Your task to perform on an android device: Search for macbook pro 13 inch on amazon.com, select the first entry, and add it to the cart. Image 0: 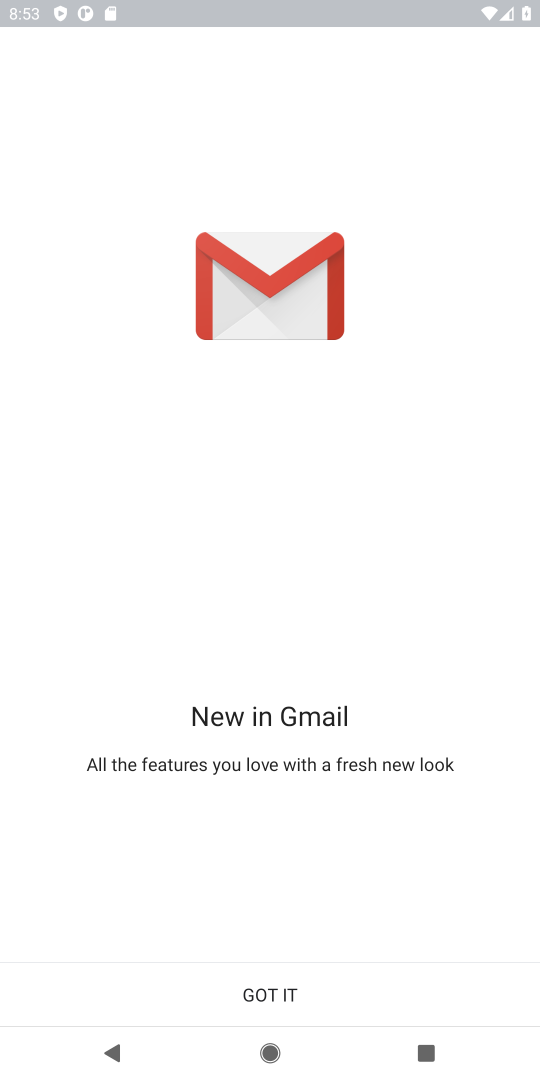
Step 0: press home button
Your task to perform on an android device: Search for macbook pro 13 inch on amazon.com, select the first entry, and add it to the cart. Image 1: 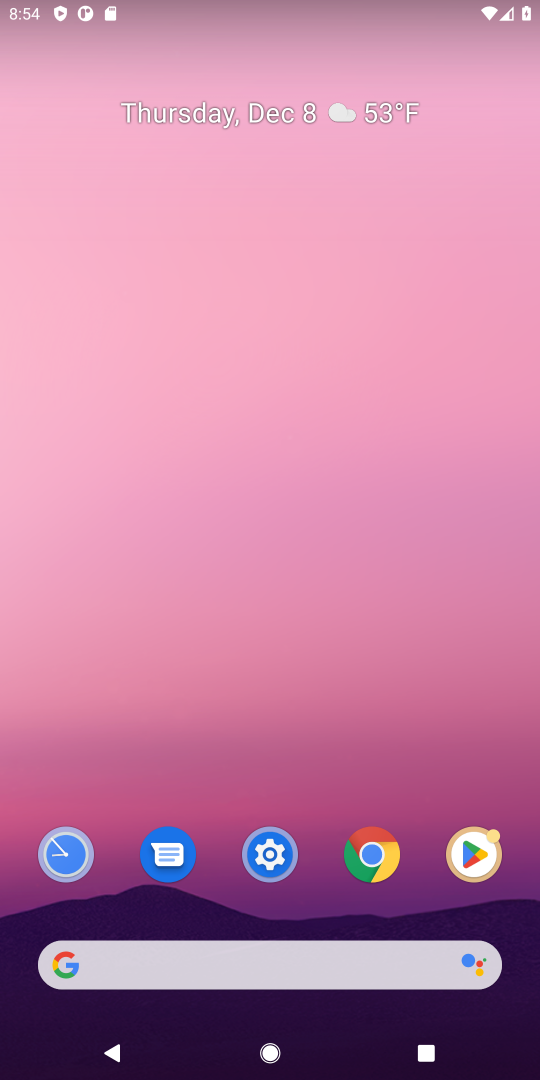
Step 1: click (82, 959)
Your task to perform on an android device: Search for macbook pro 13 inch on amazon.com, select the first entry, and add it to the cart. Image 2: 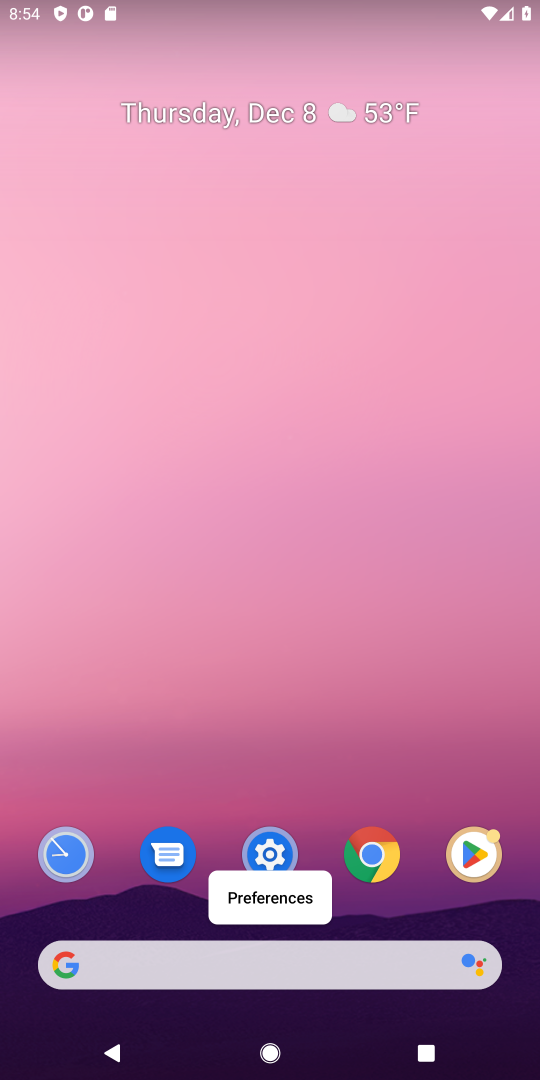
Step 2: click (91, 959)
Your task to perform on an android device: Search for macbook pro 13 inch on amazon.com, select the first entry, and add it to the cart. Image 3: 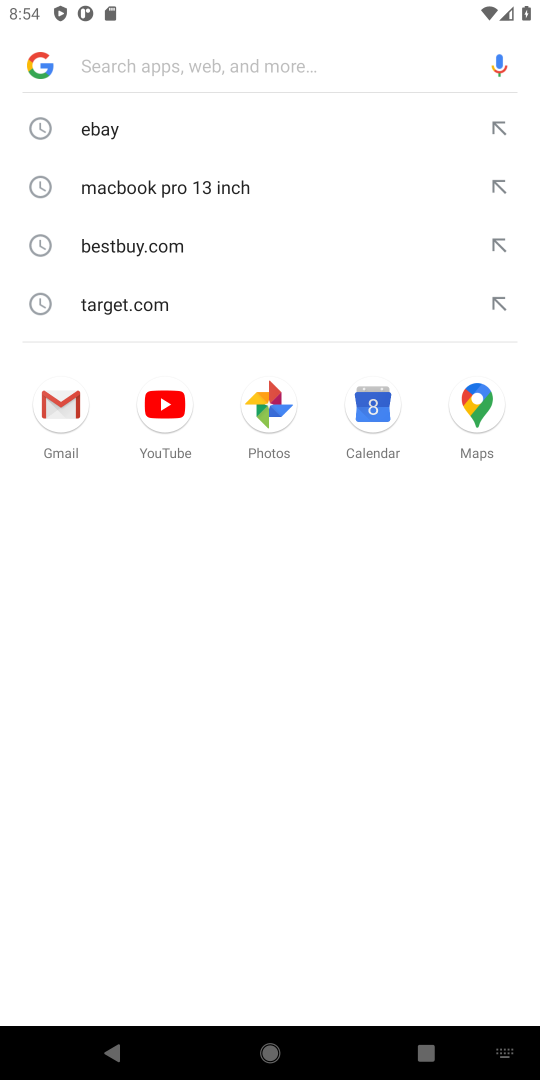
Step 3: type "amazon.com"
Your task to perform on an android device: Search for macbook pro 13 inch on amazon.com, select the first entry, and add it to the cart. Image 4: 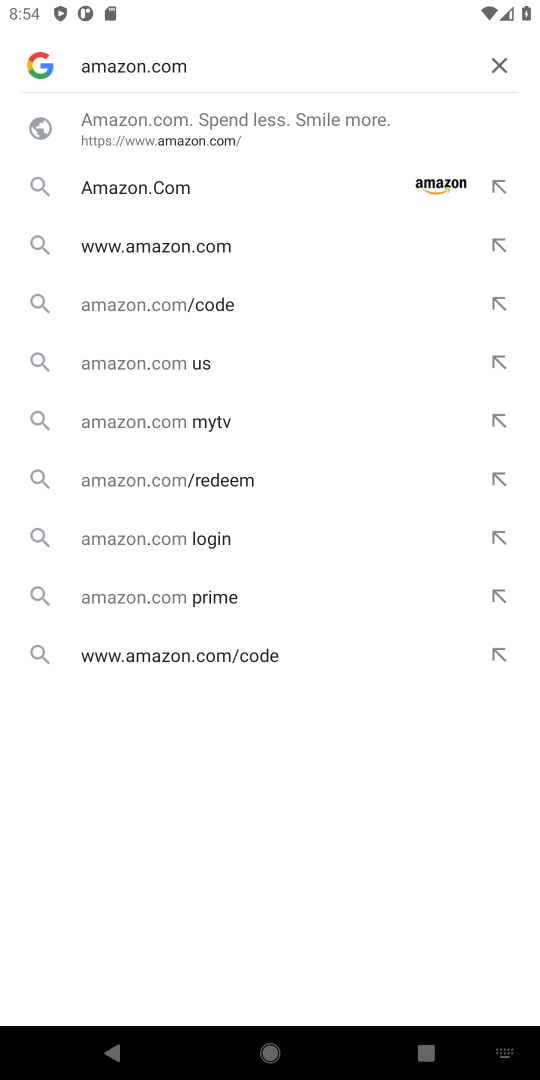
Step 4: press enter
Your task to perform on an android device: Search for macbook pro 13 inch on amazon.com, select the first entry, and add it to the cart. Image 5: 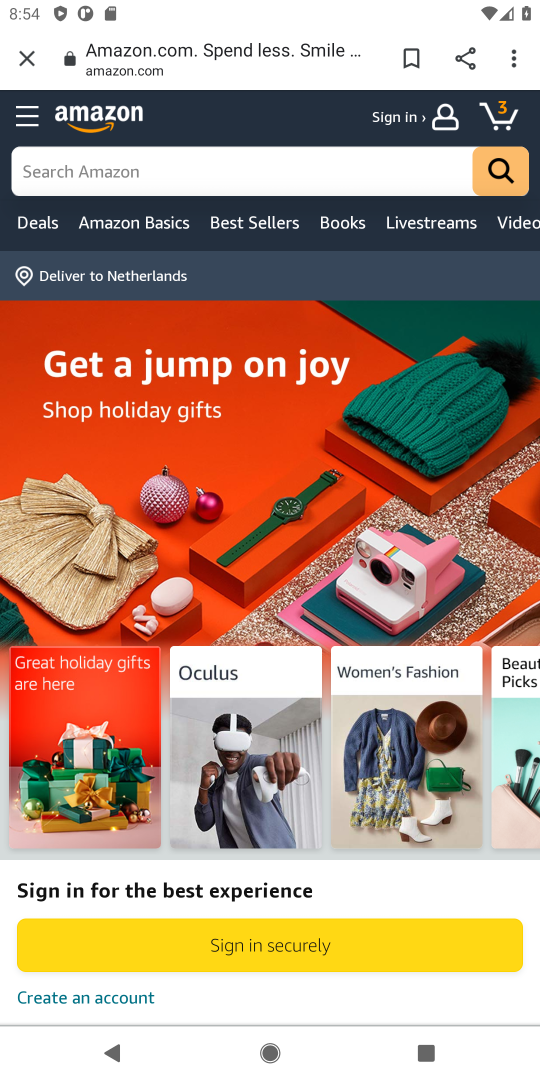
Step 5: click (46, 176)
Your task to perform on an android device: Search for macbook pro 13 inch on amazon.com, select the first entry, and add it to the cart. Image 6: 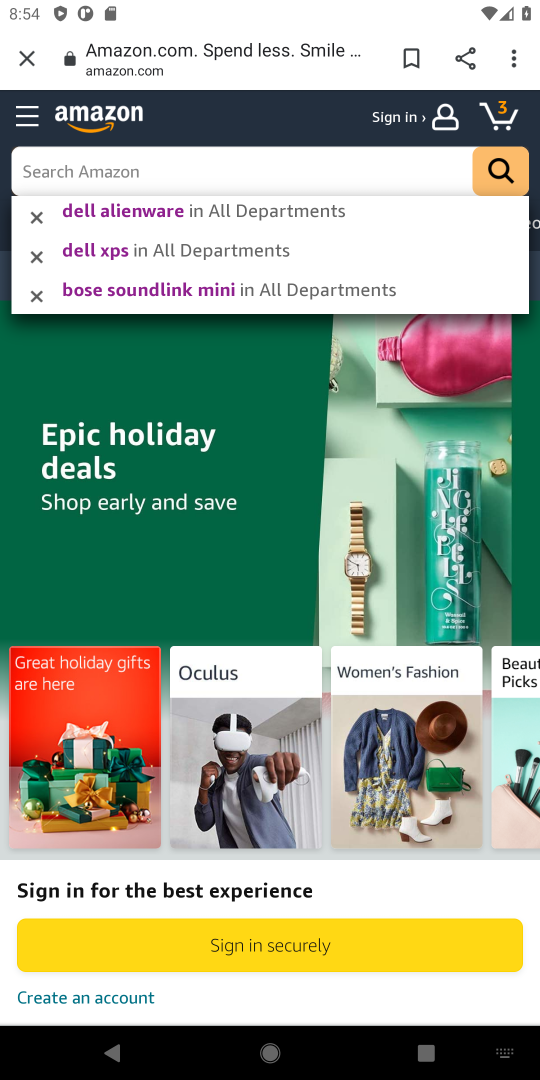
Step 6: press enter
Your task to perform on an android device: Search for macbook pro 13 inch on amazon.com, select the first entry, and add it to the cart. Image 7: 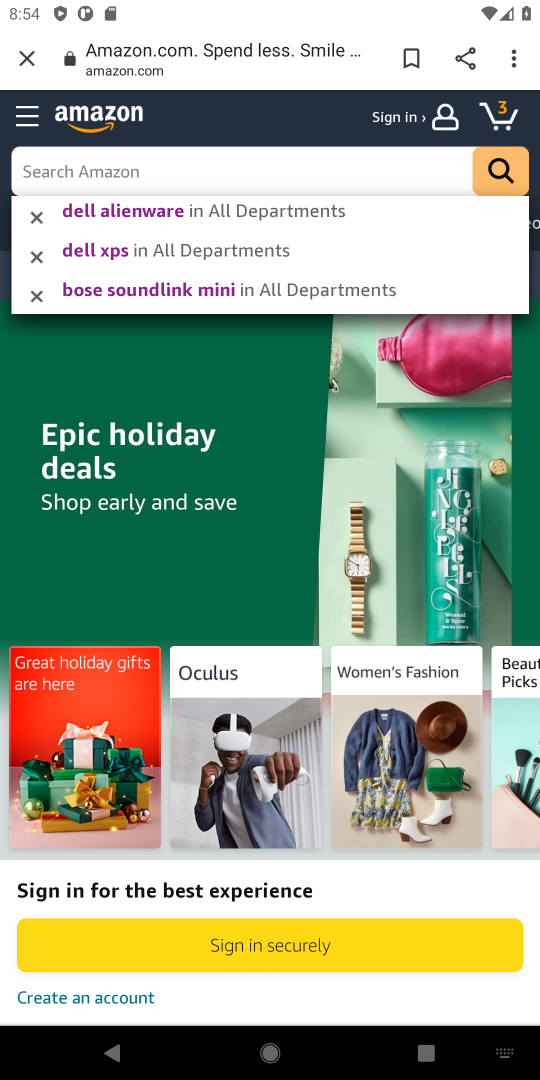
Step 7: type "macbook pro 13 inch"
Your task to perform on an android device: Search for macbook pro 13 inch on amazon.com, select the first entry, and add it to the cart. Image 8: 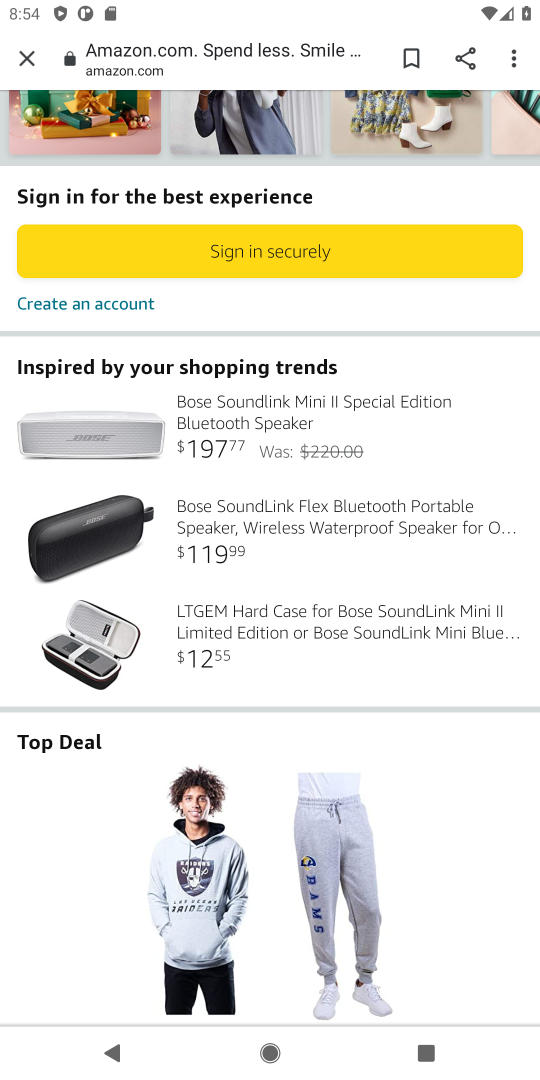
Step 8: drag from (493, 324) to (471, 913)
Your task to perform on an android device: Search for macbook pro 13 inch on amazon.com, select the first entry, and add it to the cart. Image 9: 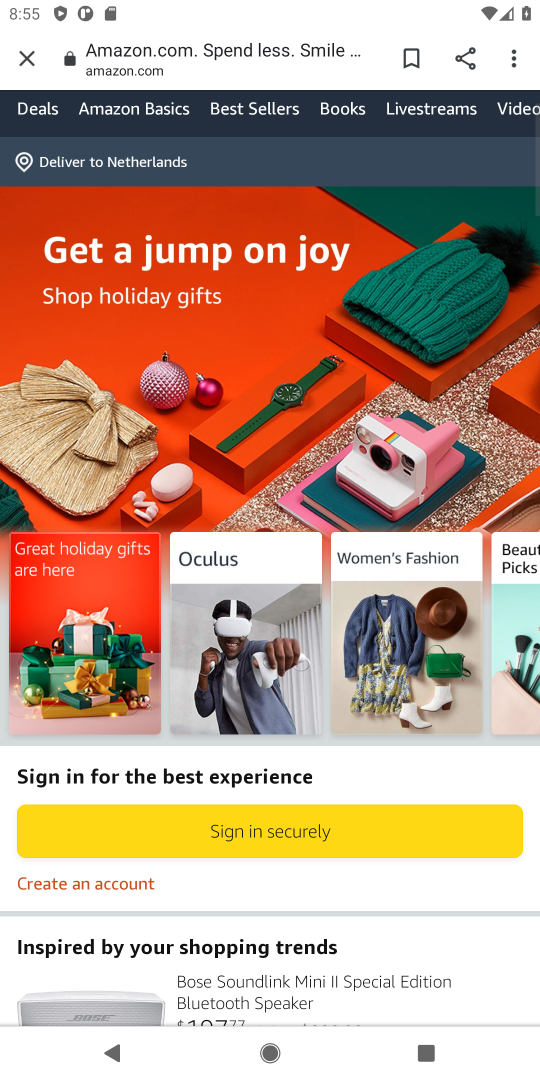
Step 9: drag from (431, 242) to (362, 938)
Your task to perform on an android device: Search for macbook pro 13 inch on amazon.com, select the first entry, and add it to the cart. Image 10: 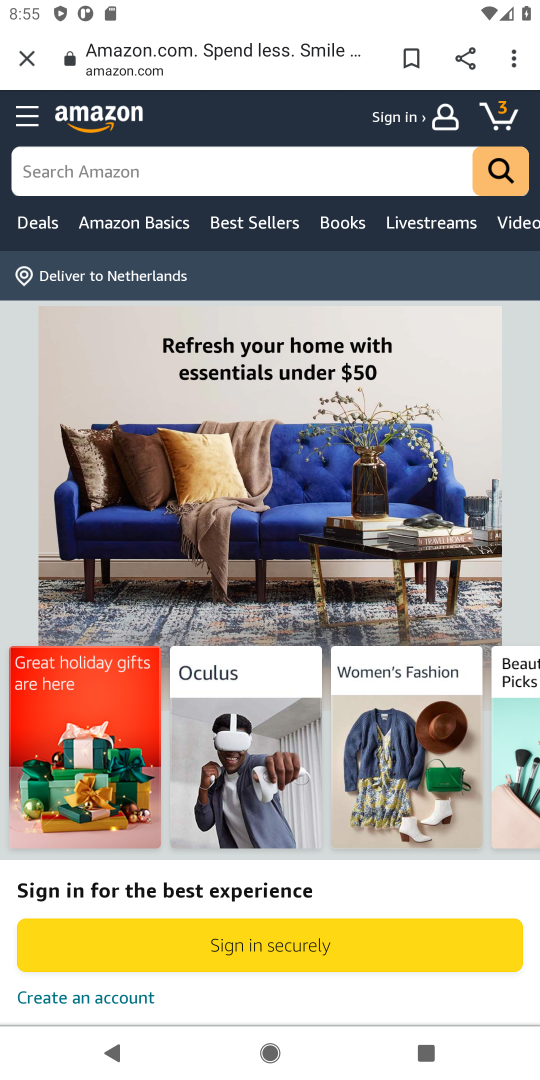
Step 10: click (81, 170)
Your task to perform on an android device: Search for macbook pro 13 inch on amazon.com, select the first entry, and add it to the cart. Image 11: 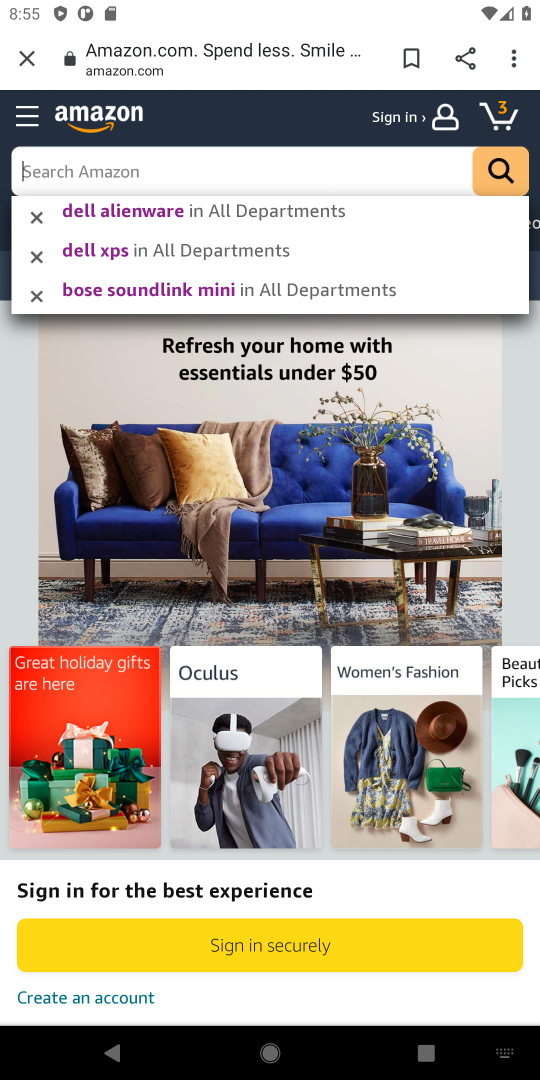
Step 11: type "macbook pro 13 inch"
Your task to perform on an android device: Search for macbook pro 13 inch on amazon.com, select the first entry, and add it to the cart. Image 12: 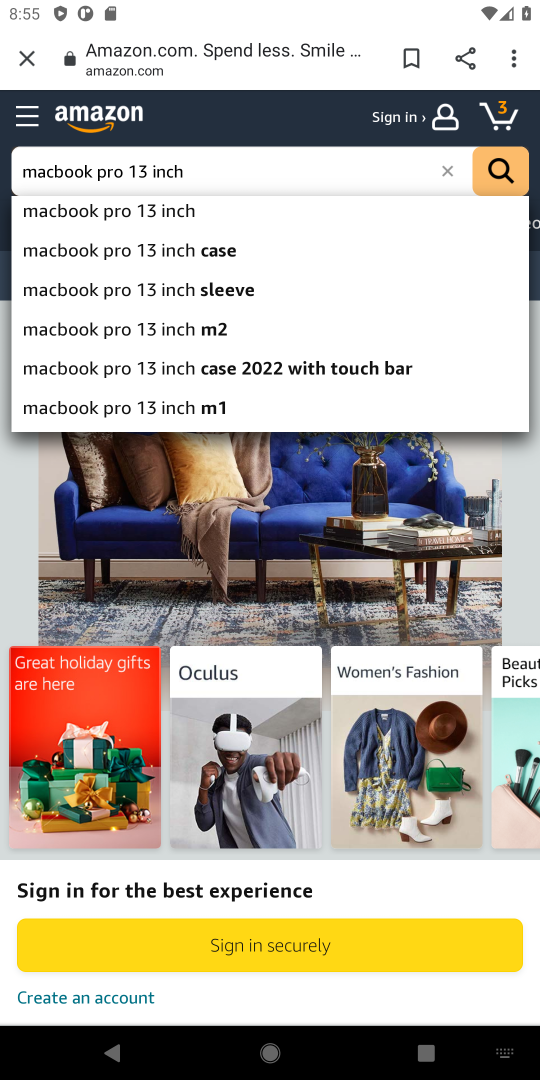
Step 12: click (493, 162)
Your task to perform on an android device: Search for macbook pro 13 inch on amazon.com, select the first entry, and add it to the cart. Image 13: 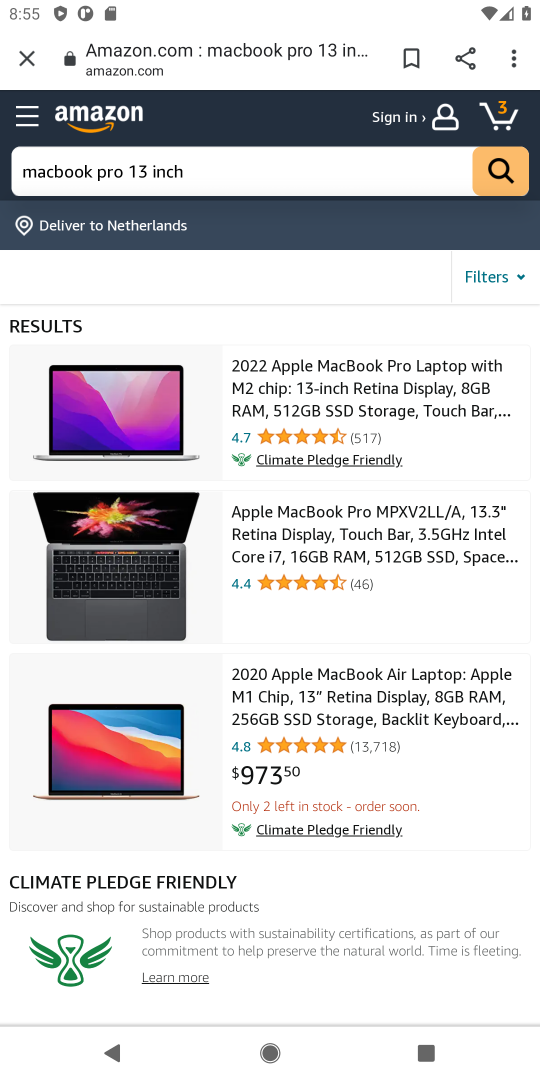
Step 13: click (342, 397)
Your task to perform on an android device: Search for macbook pro 13 inch on amazon.com, select the first entry, and add it to the cart. Image 14: 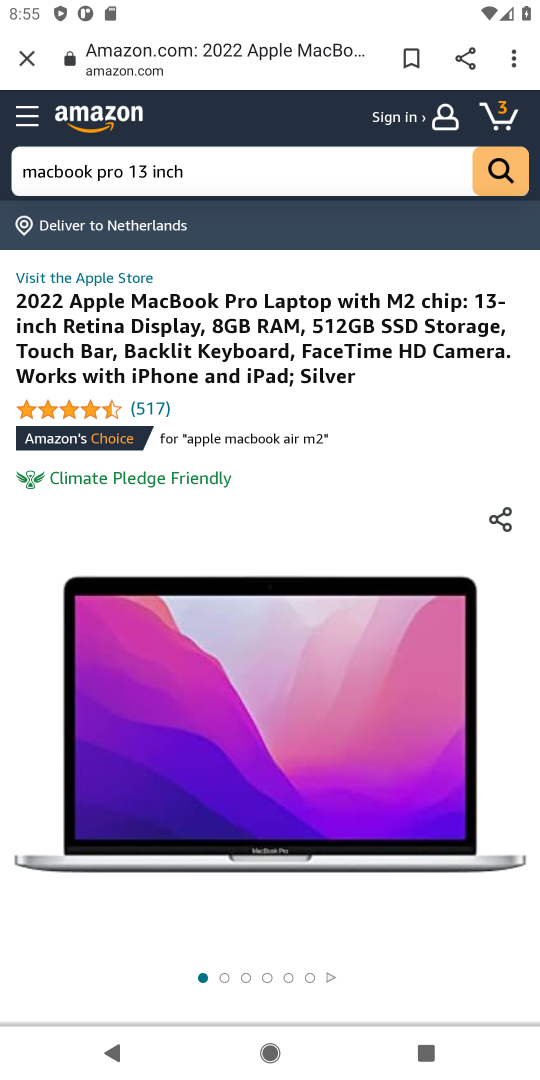
Step 14: task complete